Your task to perform on an android device: add a contact in the contacts app Image 0: 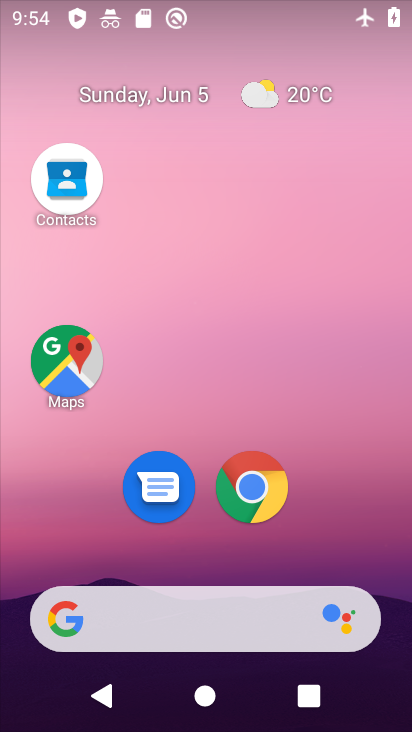
Step 0: drag from (226, 514) to (225, 94)
Your task to perform on an android device: add a contact in the contacts app Image 1: 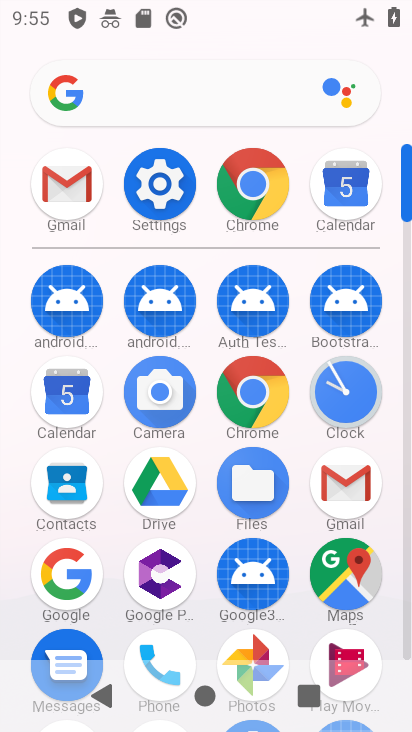
Step 1: click (75, 488)
Your task to perform on an android device: add a contact in the contacts app Image 2: 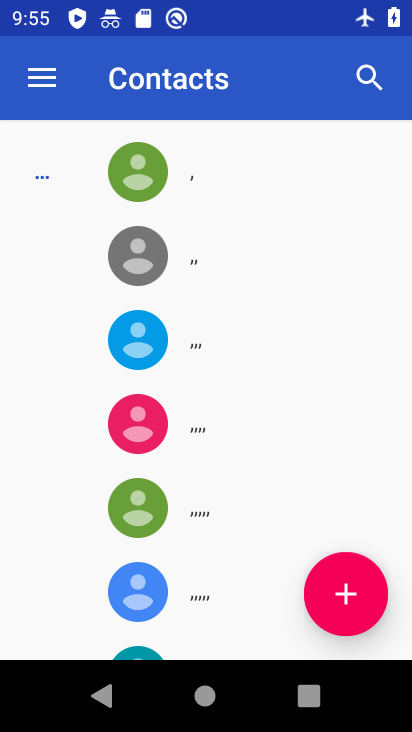
Step 2: click (336, 598)
Your task to perform on an android device: add a contact in the contacts app Image 3: 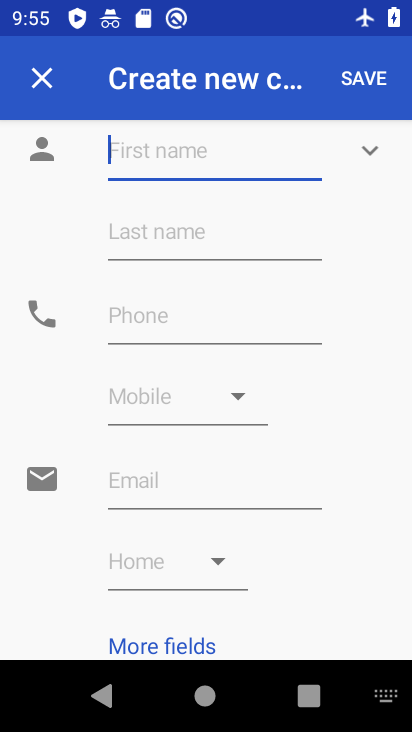
Step 3: type " g b hv  n  "
Your task to perform on an android device: add a contact in the contacts app Image 4: 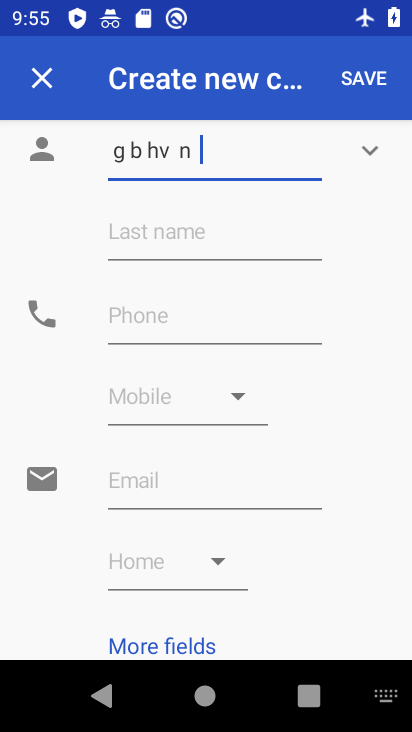
Step 4: click (221, 327)
Your task to perform on an android device: add a contact in the contacts app Image 5: 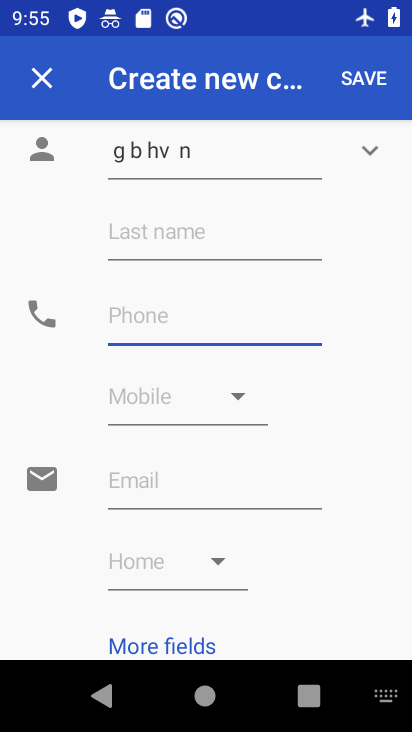
Step 5: type "87876877899"
Your task to perform on an android device: add a contact in the contacts app Image 6: 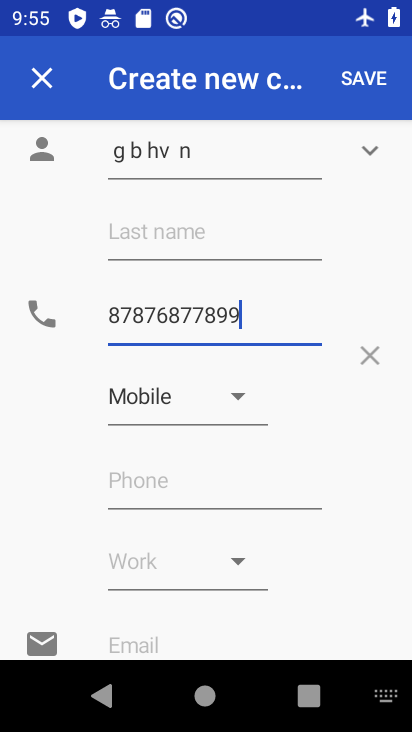
Step 6: click (374, 78)
Your task to perform on an android device: add a contact in the contacts app Image 7: 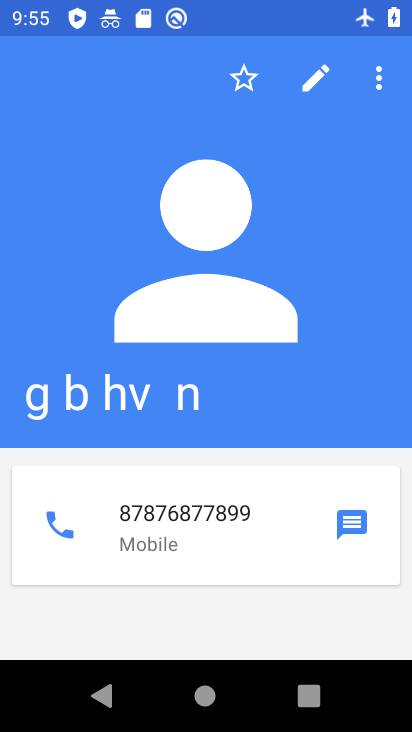
Step 7: task complete